Your task to perform on an android device: Open Yahoo.com Image 0: 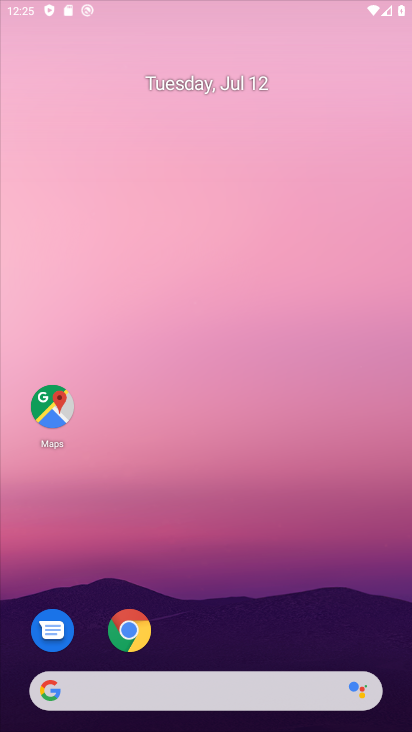
Step 0: press home button
Your task to perform on an android device: Open Yahoo.com Image 1: 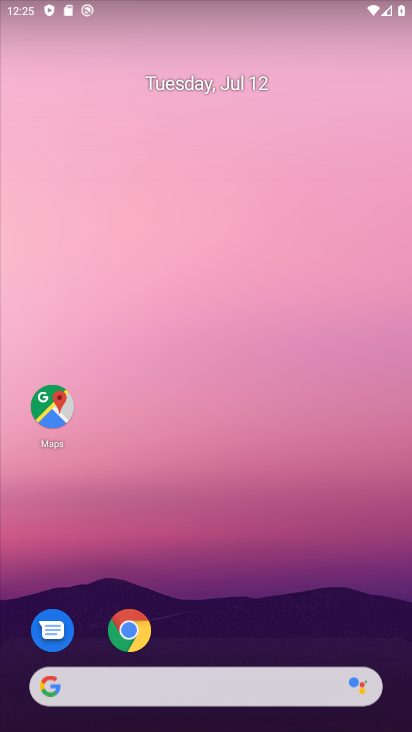
Step 1: click (128, 631)
Your task to perform on an android device: Open Yahoo.com Image 2: 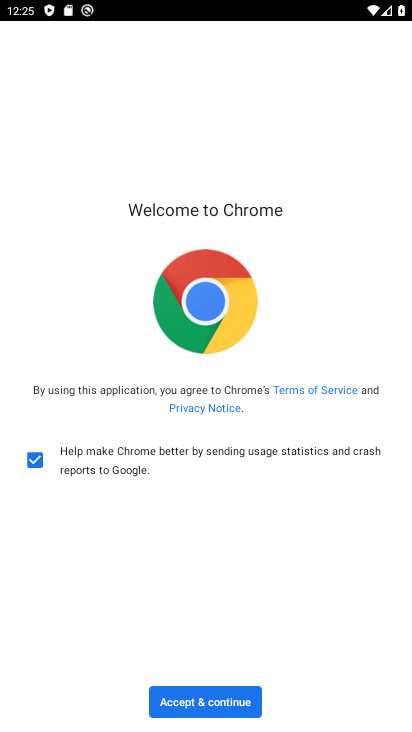
Step 2: click (200, 699)
Your task to perform on an android device: Open Yahoo.com Image 3: 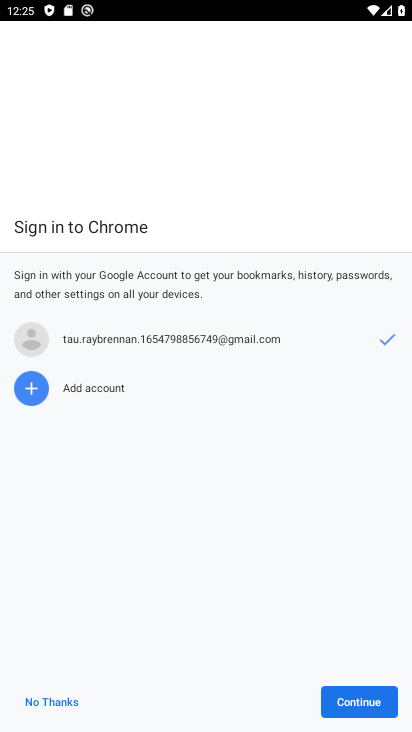
Step 3: click (357, 702)
Your task to perform on an android device: Open Yahoo.com Image 4: 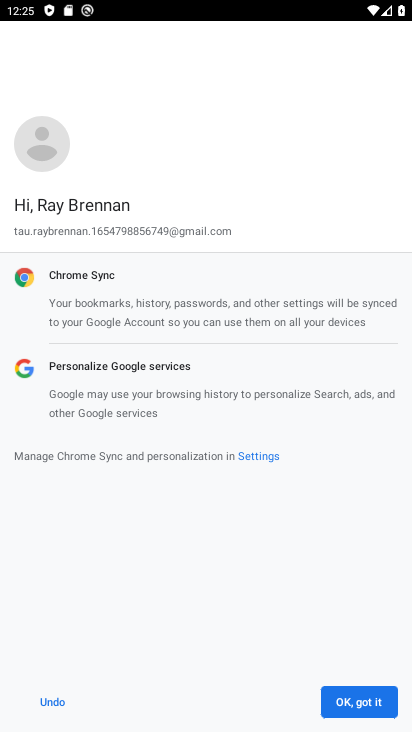
Step 4: click (346, 702)
Your task to perform on an android device: Open Yahoo.com Image 5: 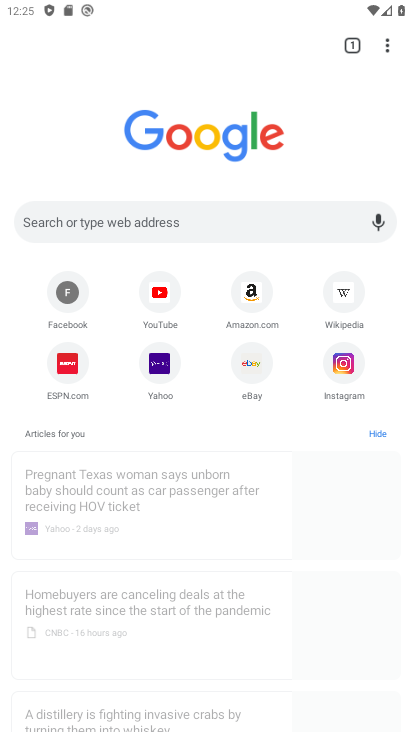
Step 5: click (119, 221)
Your task to perform on an android device: Open Yahoo.com Image 6: 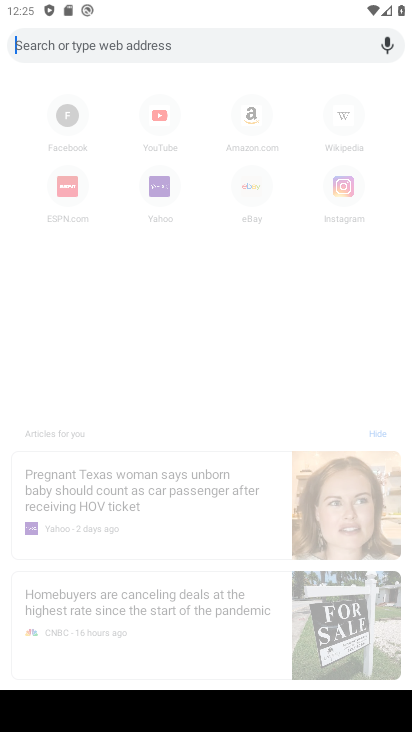
Step 6: type "yahoo.com"
Your task to perform on an android device: Open Yahoo.com Image 7: 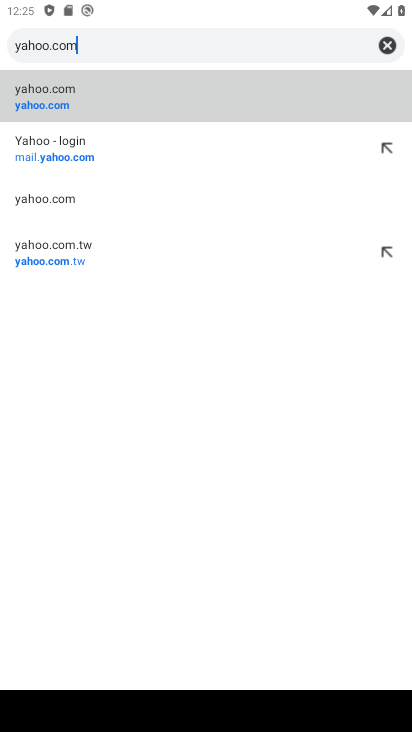
Step 7: click (47, 91)
Your task to perform on an android device: Open Yahoo.com Image 8: 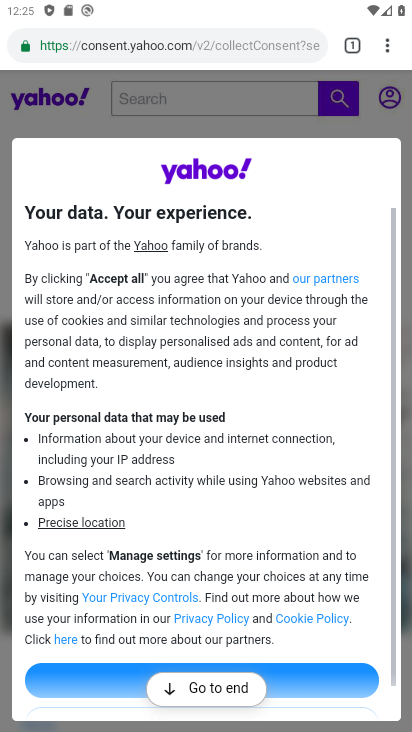
Step 8: click (200, 685)
Your task to perform on an android device: Open Yahoo.com Image 9: 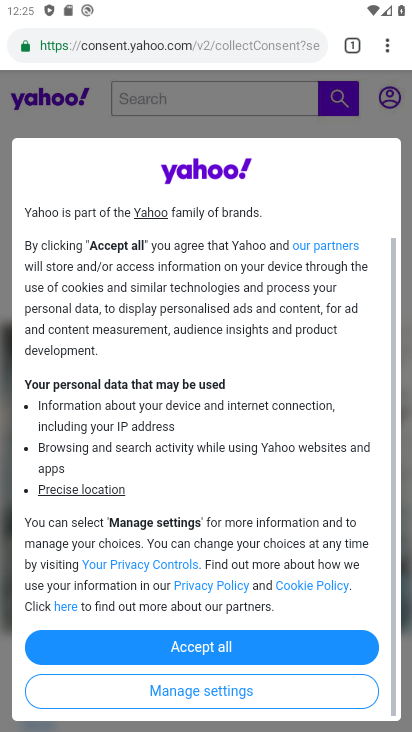
Step 9: click (202, 645)
Your task to perform on an android device: Open Yahoo.com Image 10: 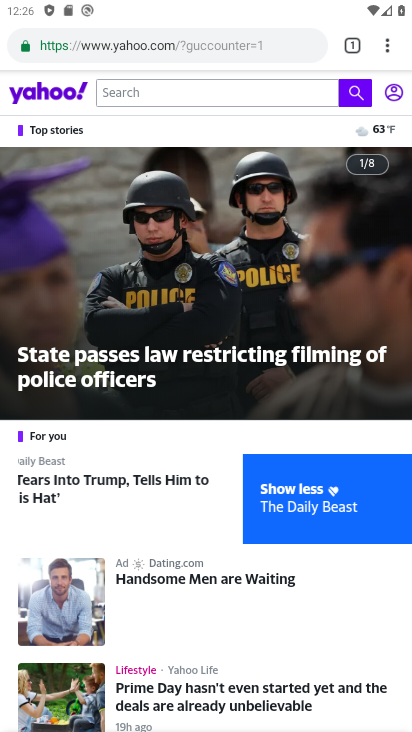
Step 10: task complete